Your task to perform on an android device: turn notification dots on Image 0: 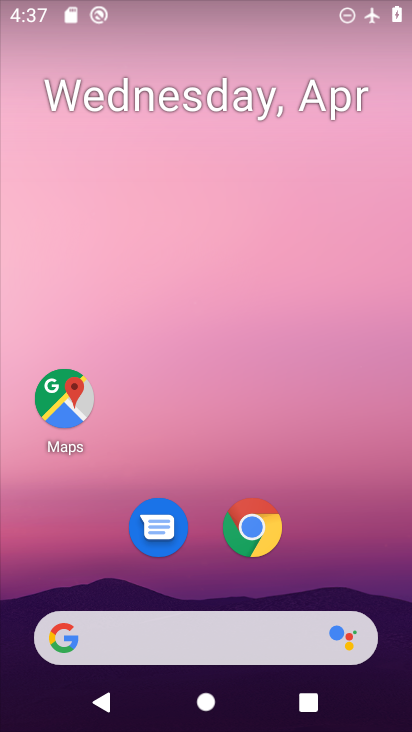
Step 0: drag from (387, 475) to (377, 19)
Your task to perform on an android device: turn notification dots on Image 1: 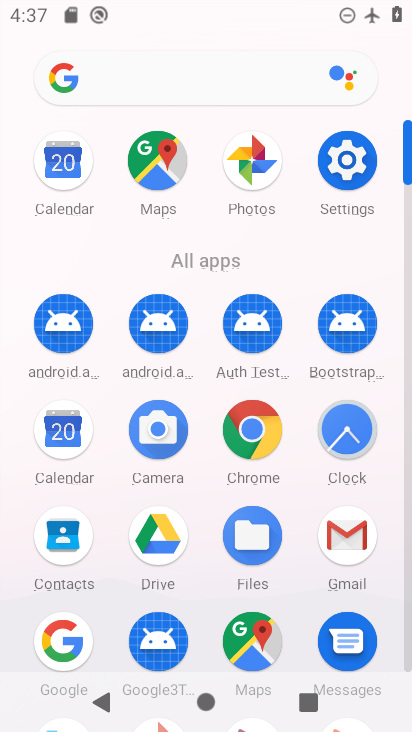
Step 1: click (357, 174)
Your task to perform on an android device: turn notification dots on Image 2: 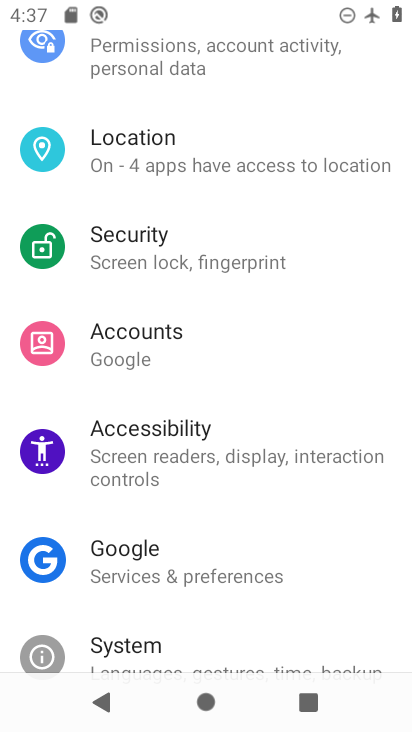
Step 2: drag from (355, 235) to (363, 590)
Your task to perform on an android device: turn notification dots on Image 3: 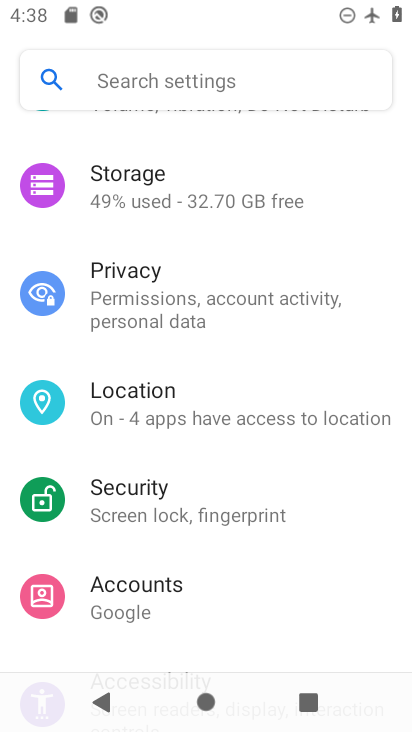
Step 3: drag from (329, 293) to (363, 588)
Your task to perform on an android device: turn notification dots on Image 4: 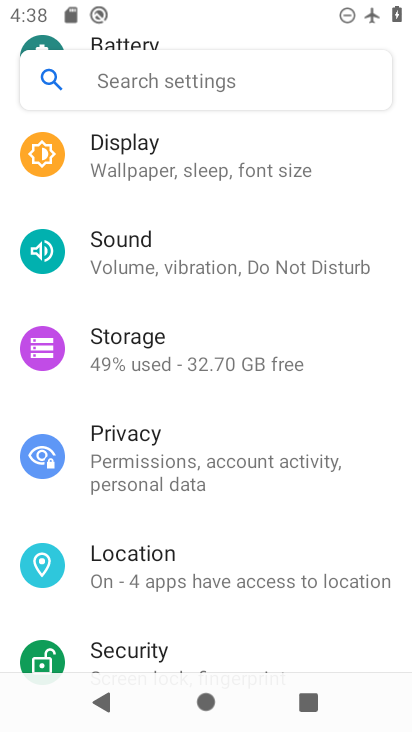
Step 4: drag from (288, 250) to (303, 519)
Your task to perform on an android device: turn notification dots on Image 5: 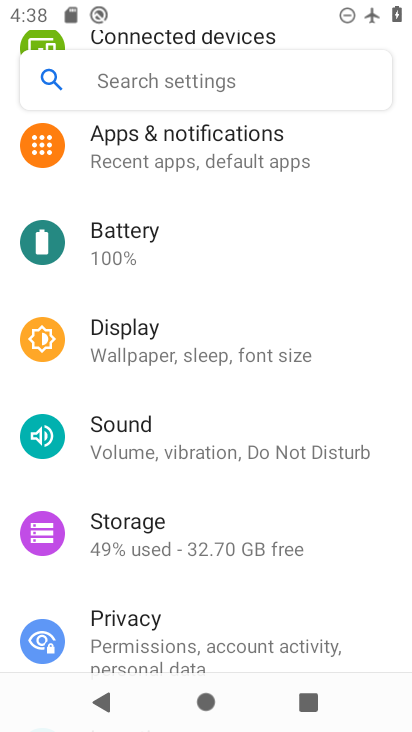
Step 5: click (197, 164)
Your task to perform on an android device: turn notification dots on Image 6: 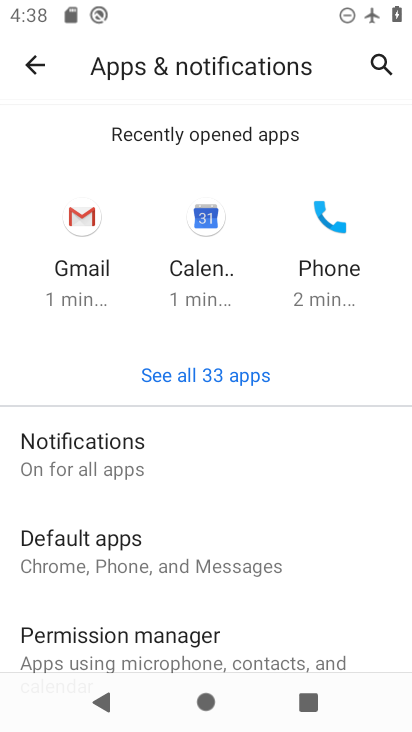
Step 6: click (92, 464)
Your task to perform on an android device: turn notification dots on Image 7: 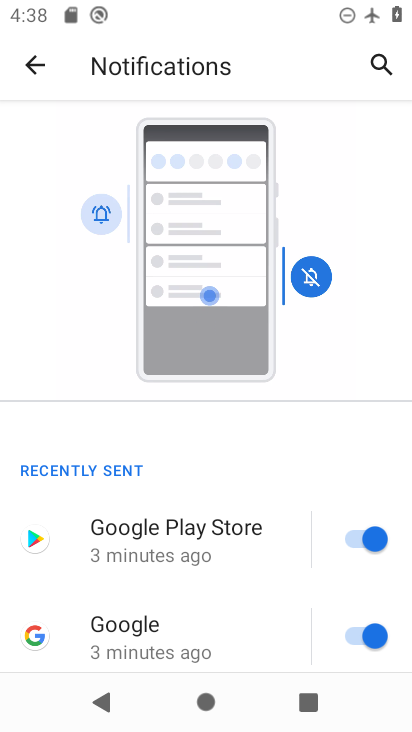
Step 7: drag from (168, 588) to (188, 184)
Your task to perform on an android device: turn notification dots on Image 8: 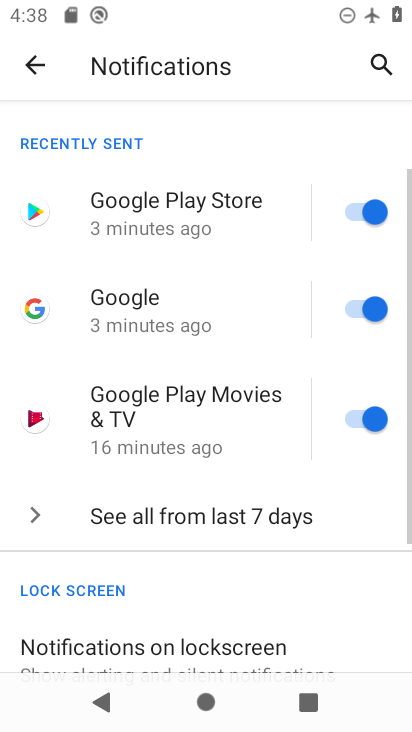
Step 8: drag from (186, 532) to (186, 152)
Your task to perform on an android device: turn notification dots on Image 9: 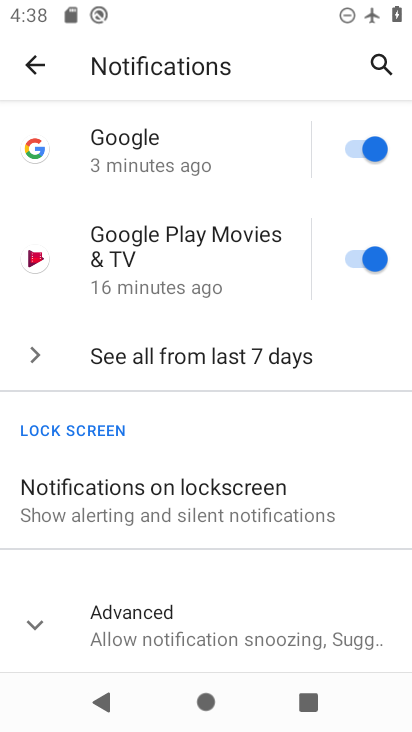
Step 9: click (42, 635)
Your task to perform on an android device: turn notification dots on Image 10: 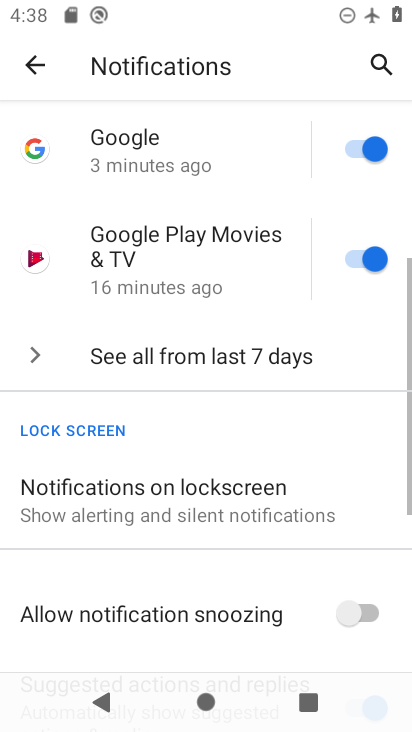
Step 10: task complete